Your task to perform on an android device: turn off location Image 0: 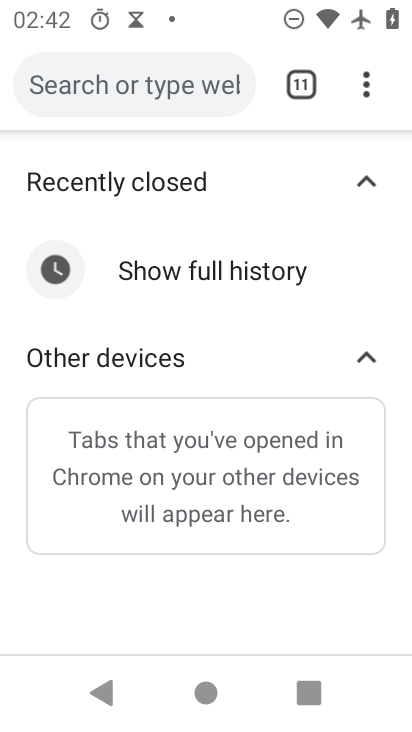
Step 0: press home button
Your task to perform on an android device: turn off location Image 1: 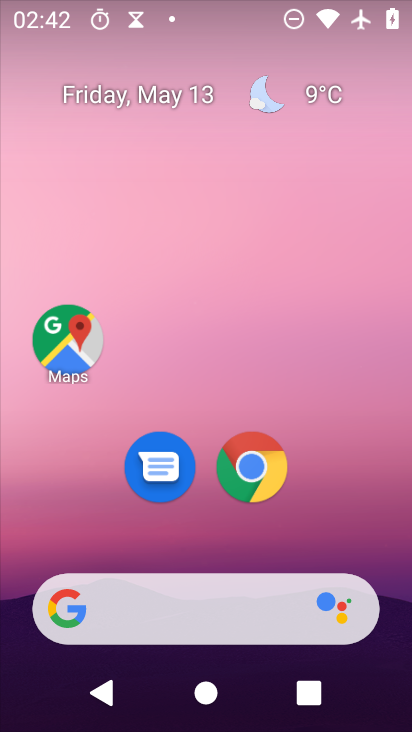
Step 1: drag from (314, 495) to (229, 54)
Your task to perform on an android device: turn off location Image 2: 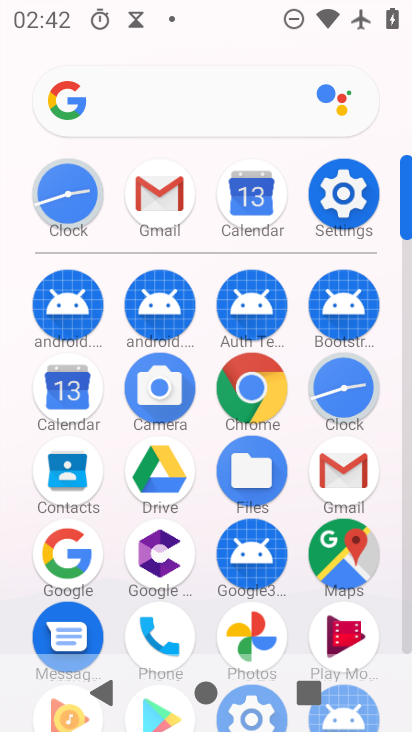
Step 2: click (343, 199)
Your task to perform on an android device: turn off location Image 3: 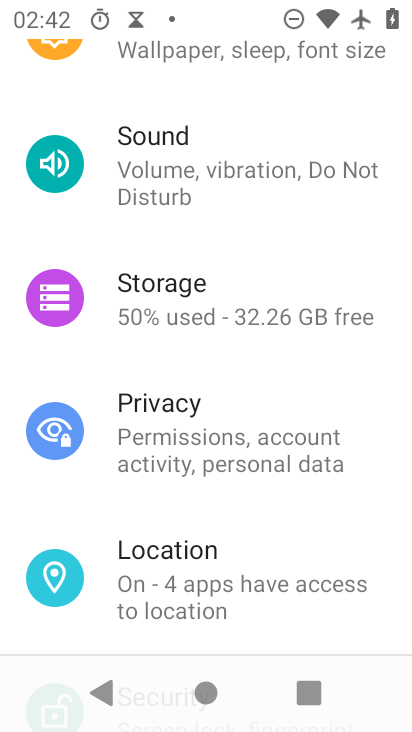
Step 3: click (241, 586)
Your task to perform on an android device: turn off location Image 4: 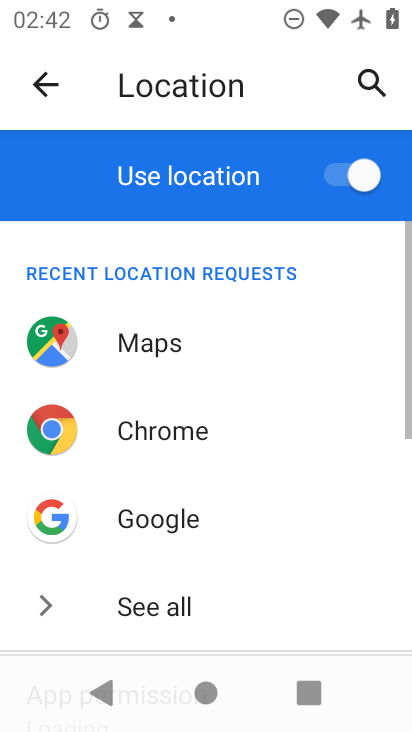
Step 4: drag from (254, 513) to (226, 132)
Your task to perform on an android device: turn off location Image 5: 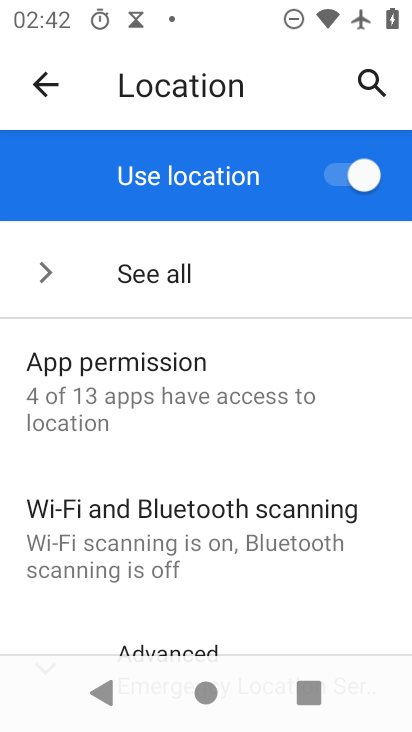
Step 5: drag from (240, 548) to (237, 242)
Your task to perform on an android device: turn off location Image 6: 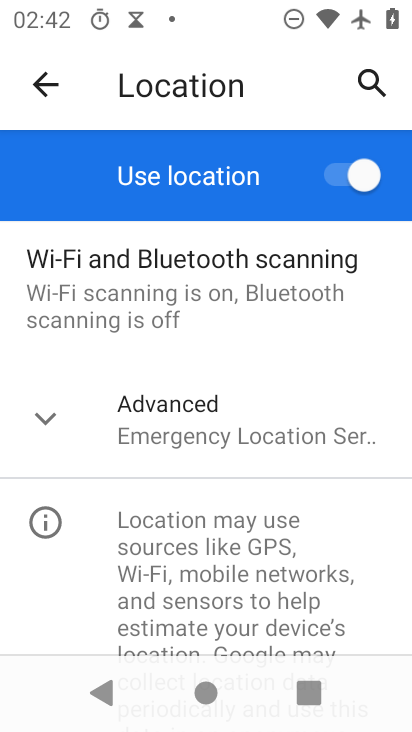
Step 6: click (341, 177)
Your task to perform on an android device: turn off location Image 7: 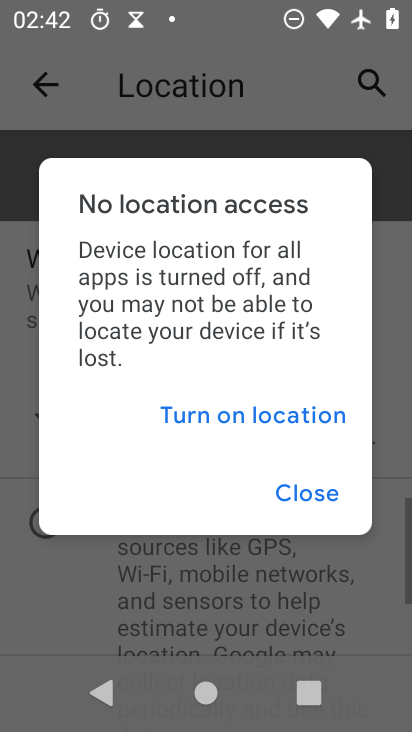
Step 7: task complete